Your task to perform on an android device: Clear the cart on walmart.com. Search for alienware aurora on walmart.com, select the first entry, and add it to the cart. Image 0: 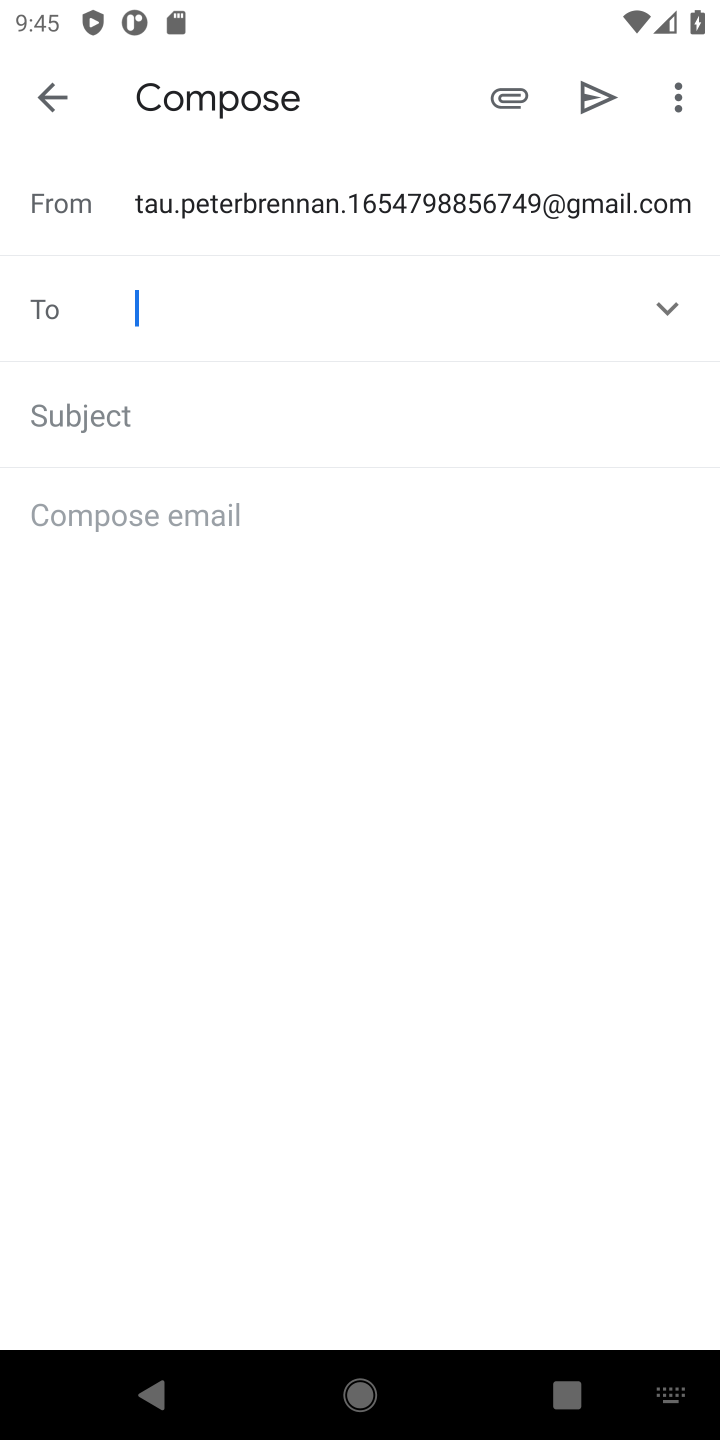
Step 0: press home button
Your task to perform on an android device: Clear the cart on walmart.com. Search for alienware aurora on walmart.com, select the first entry, and add it to the cart. Image 1: 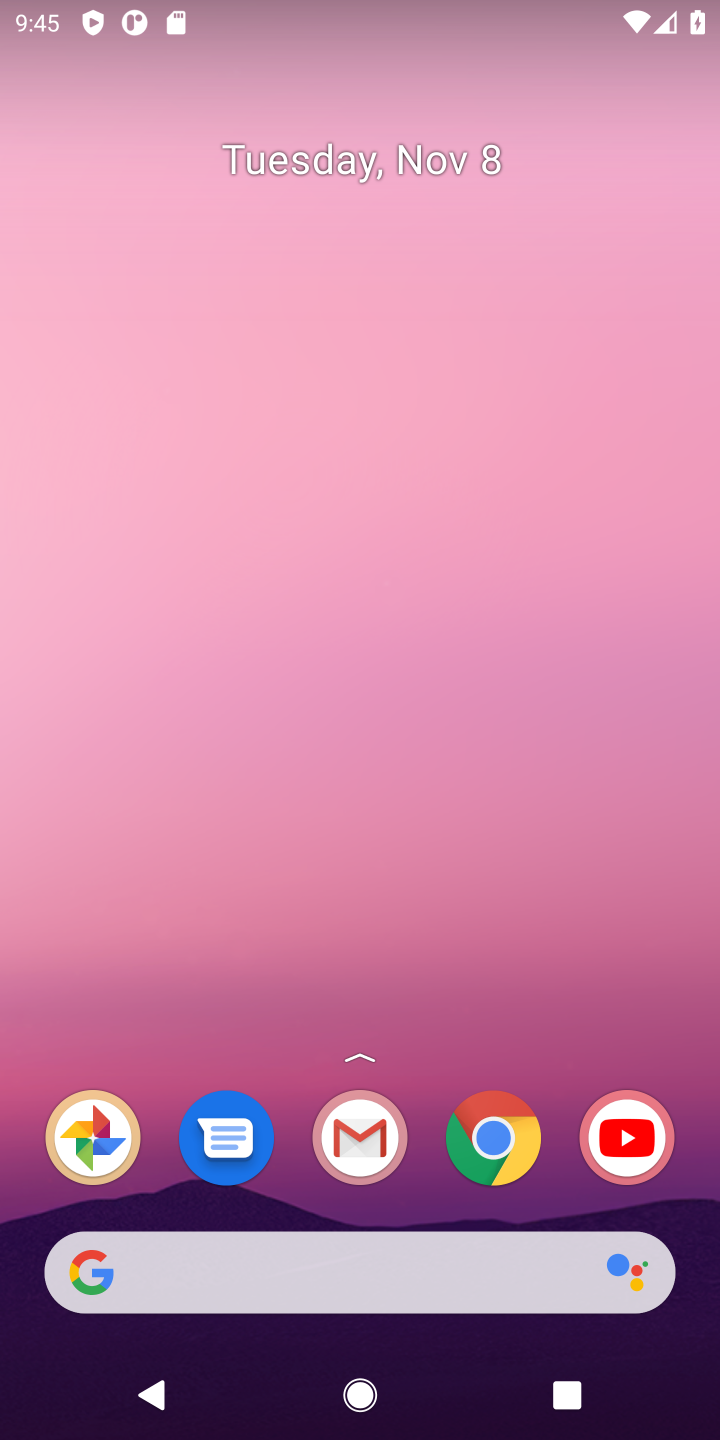
Step 1: click (506, 1148)
Your task to perform on an android device: Clear the cart on walmart.com. Search for alienware aurora on walmart.com, select the first entry, and add it to the cart. Image 2: 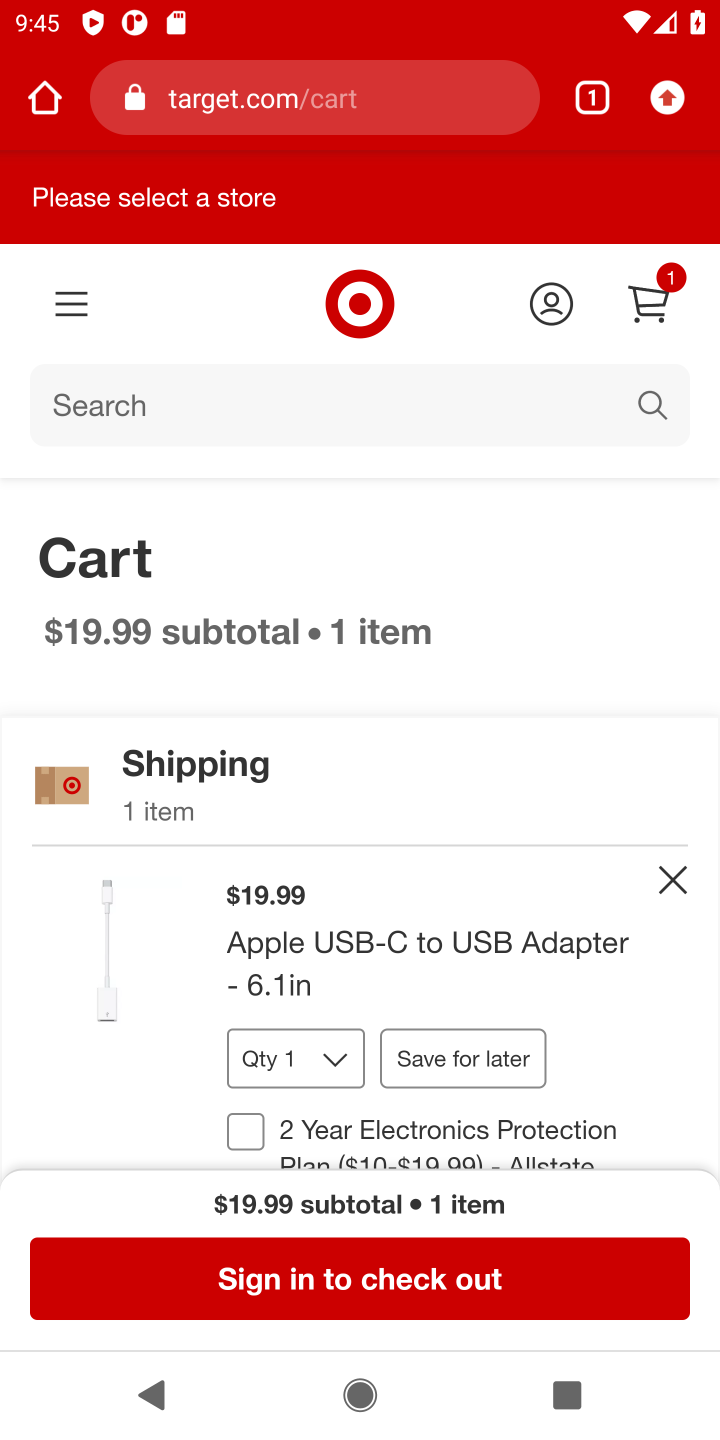
Step 2: click (372, 102)
Your task to perform on an android device: Clear the cart on walmart.com. Search for alienware aurora on walmart.com, select the first entry, and add it to the cart. Image 3: 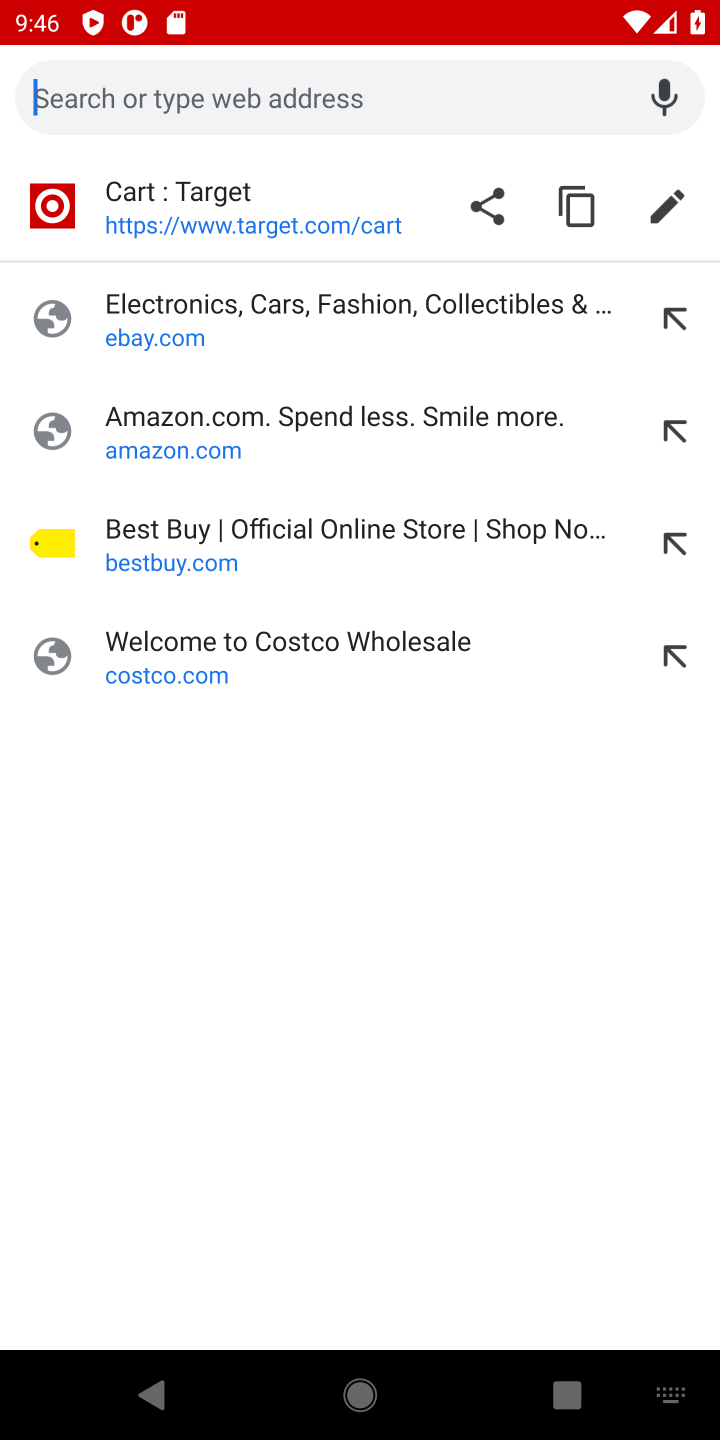
Step 3: type "walmart.com"
Your task to perform on an android device: Clear the cart on walmart.com. Search for alienware aurora on walmart.com, select the first entry, and add it to the cart. Image 4: 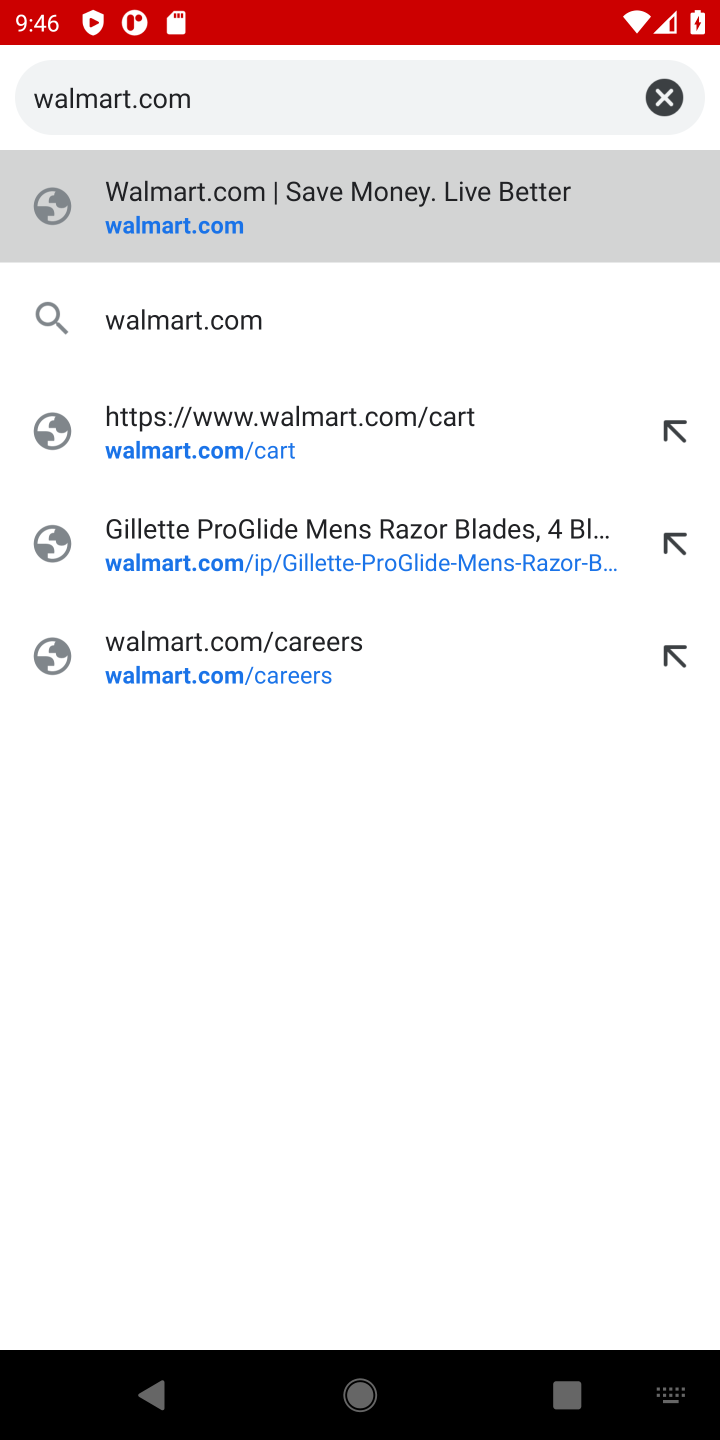
Step 4: press enter
Your task to perform on an android device: Clear the cart on walmart.com. Search for alienware aurora on walmart.com, select the first entry, and add it to the cart. Image 5: 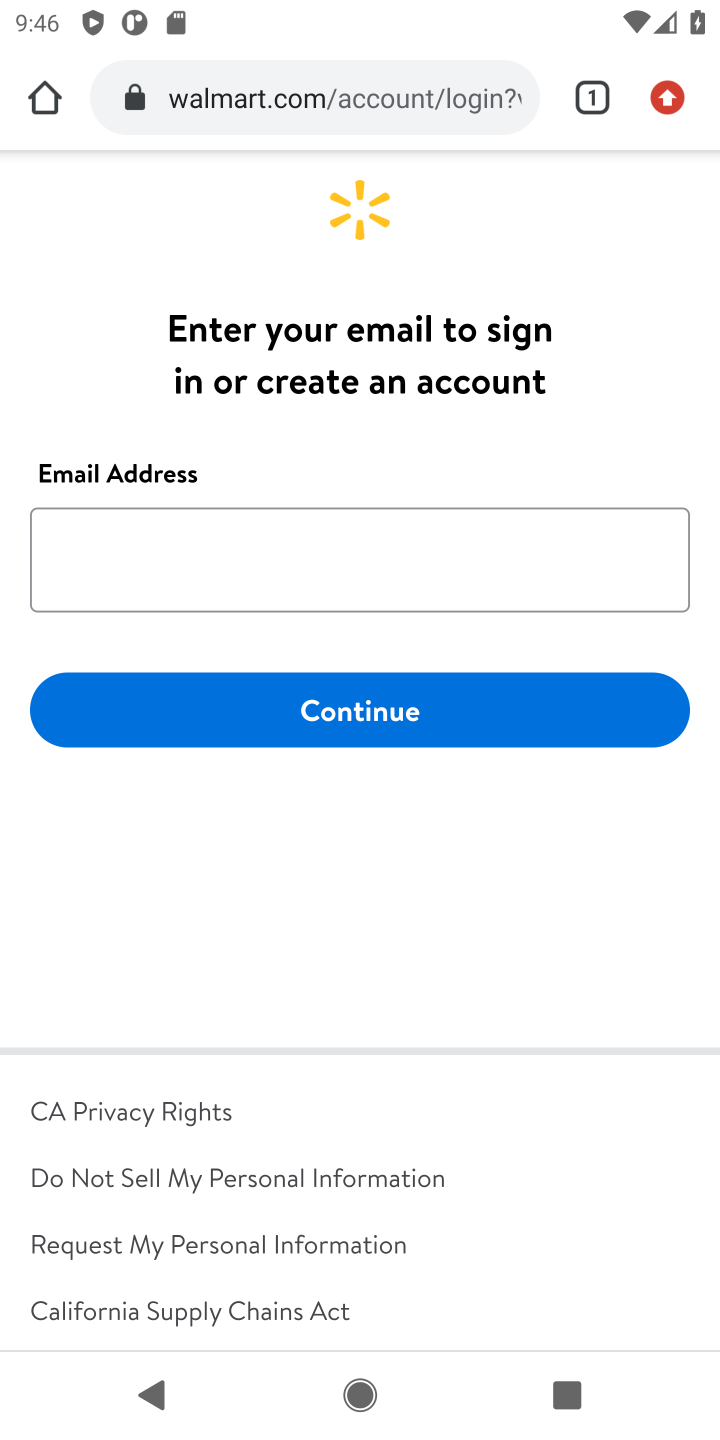
Step 5: drag from (377, 266) to (456, 1160)
Your task to perform on an android device: Clear the cart on walmart.com. Search for alienware aurora on walmart.com, select the first entry, and add it to the cart. Image 6: 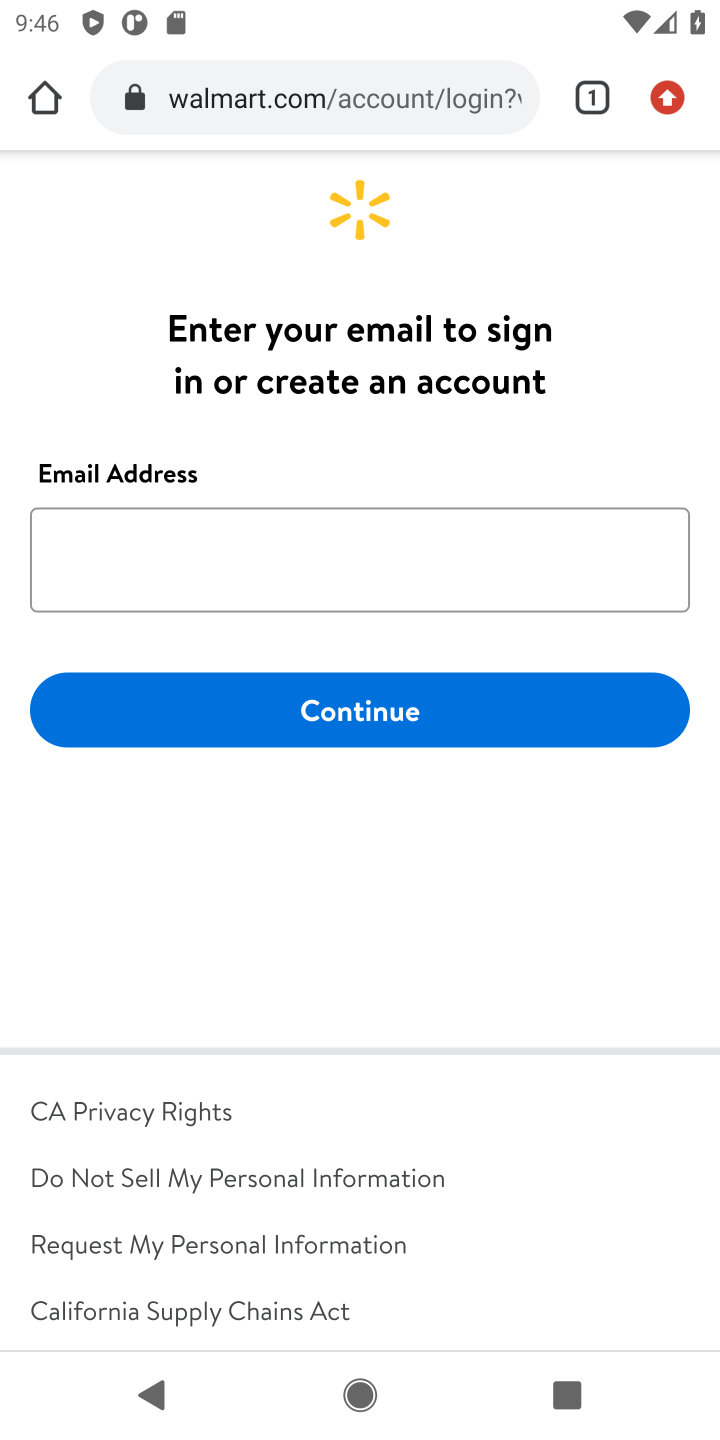
Step 6: press back button
Your task to perform on an android device: Clear the cart on walmart.com. Search for alienware aurora on walmart.com, select the first entry, and add it to the cart. Image 7: 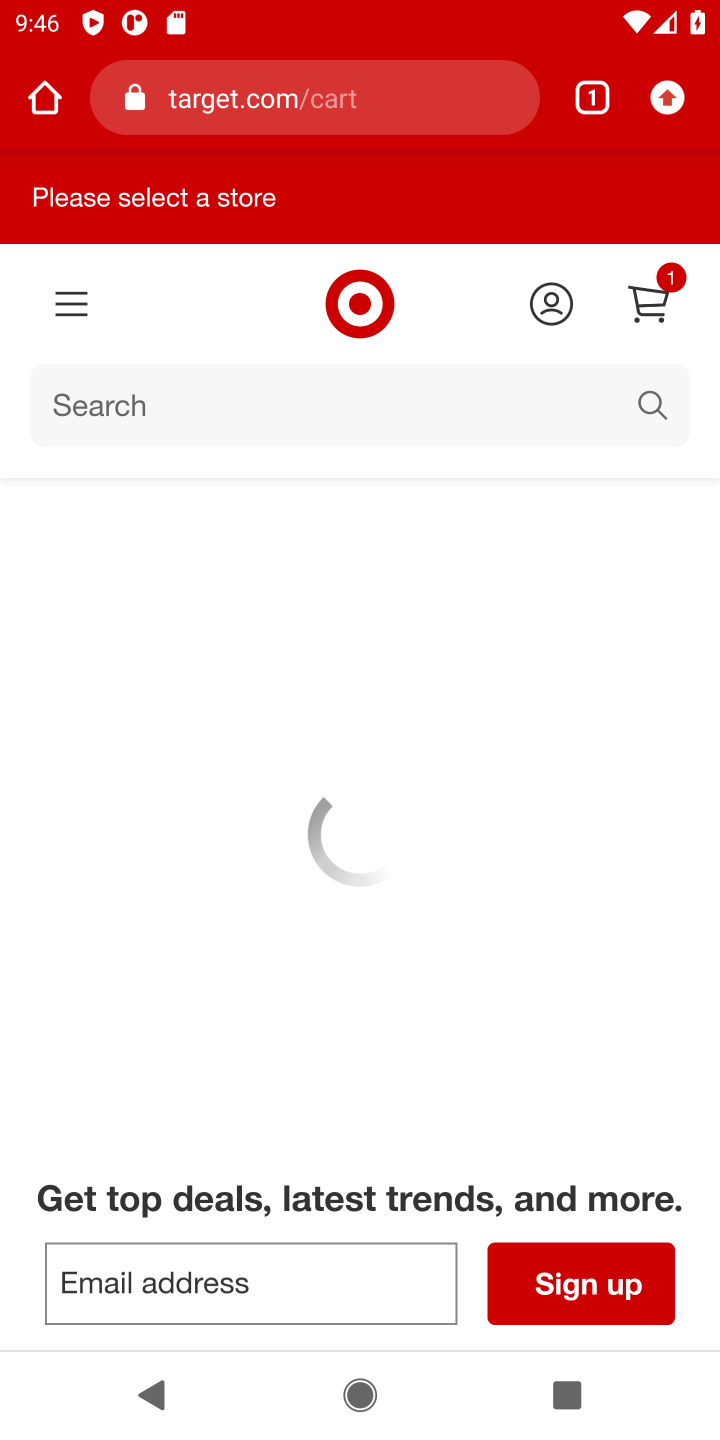
Step 7: click (307, 78)
Your task to perform on an android device: Clear the cart on walmart.com. Search for alienware aurora on walmart.com, select the first entry, and add it to the cart. Image 8: 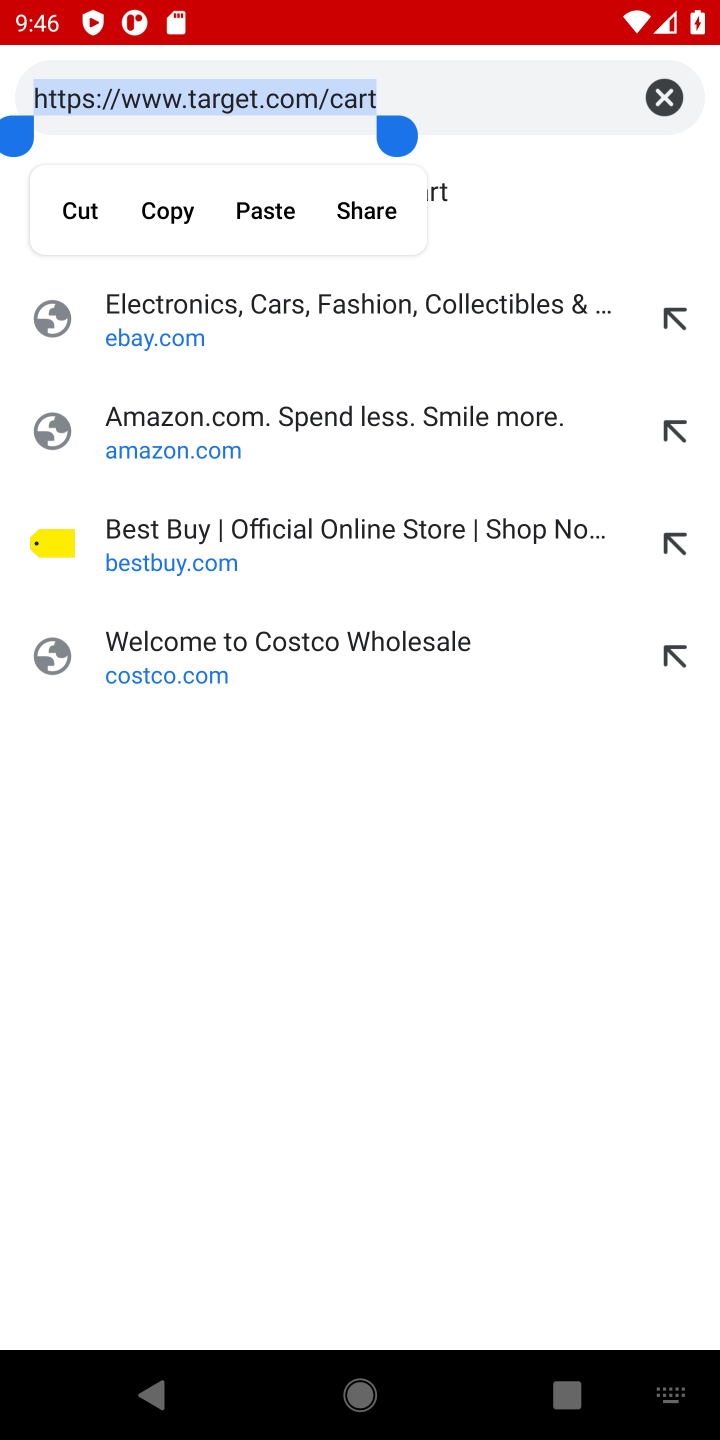
Step 8: click (663, 99)
Your task to perform on an android device: Clear the cart on walmart.com. Search for alienware aurora on walmart.com, select the first entry, and add it to the cart. Image 9: 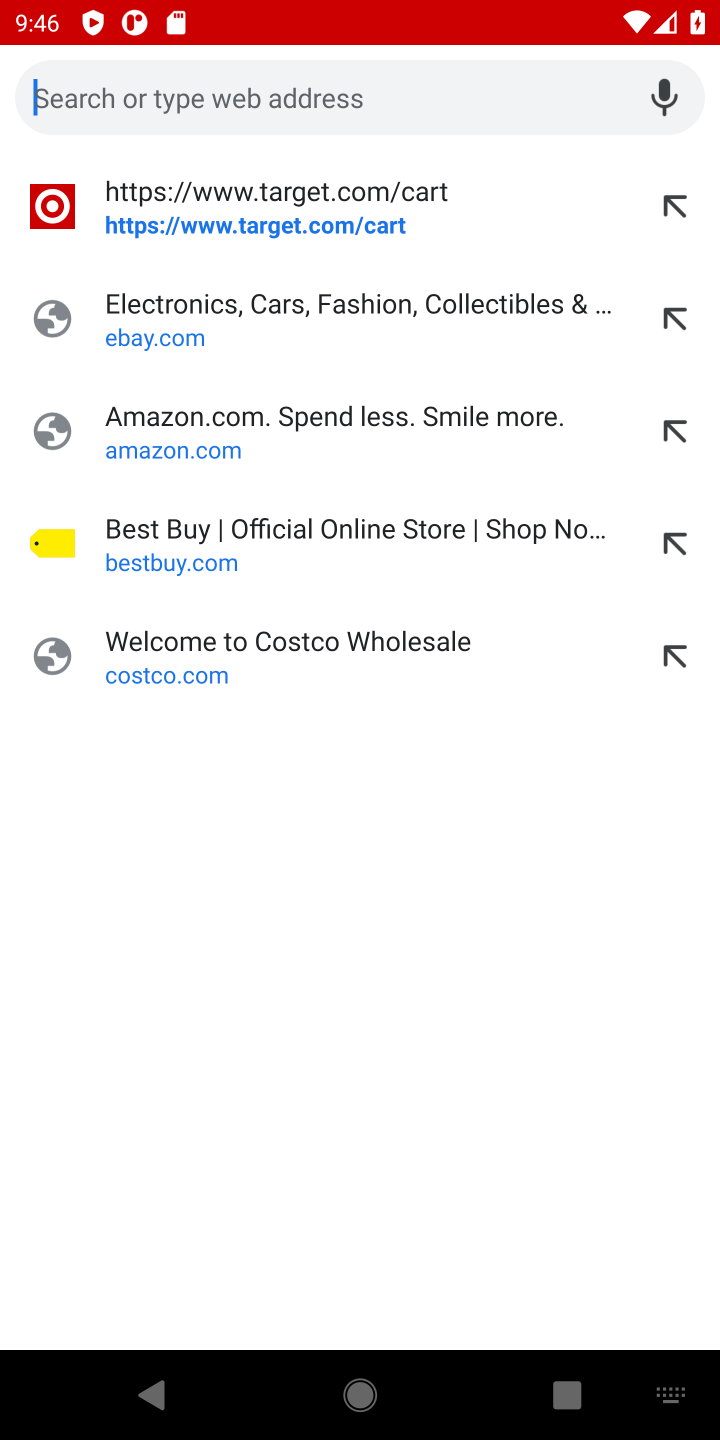
Step 9: type "walmart.com"
Your task to perform on an android device: Clear the cart on walmart.com. Search for alienware aurora on walmart.com, select the first entry, and add it to the cart. Image 10: 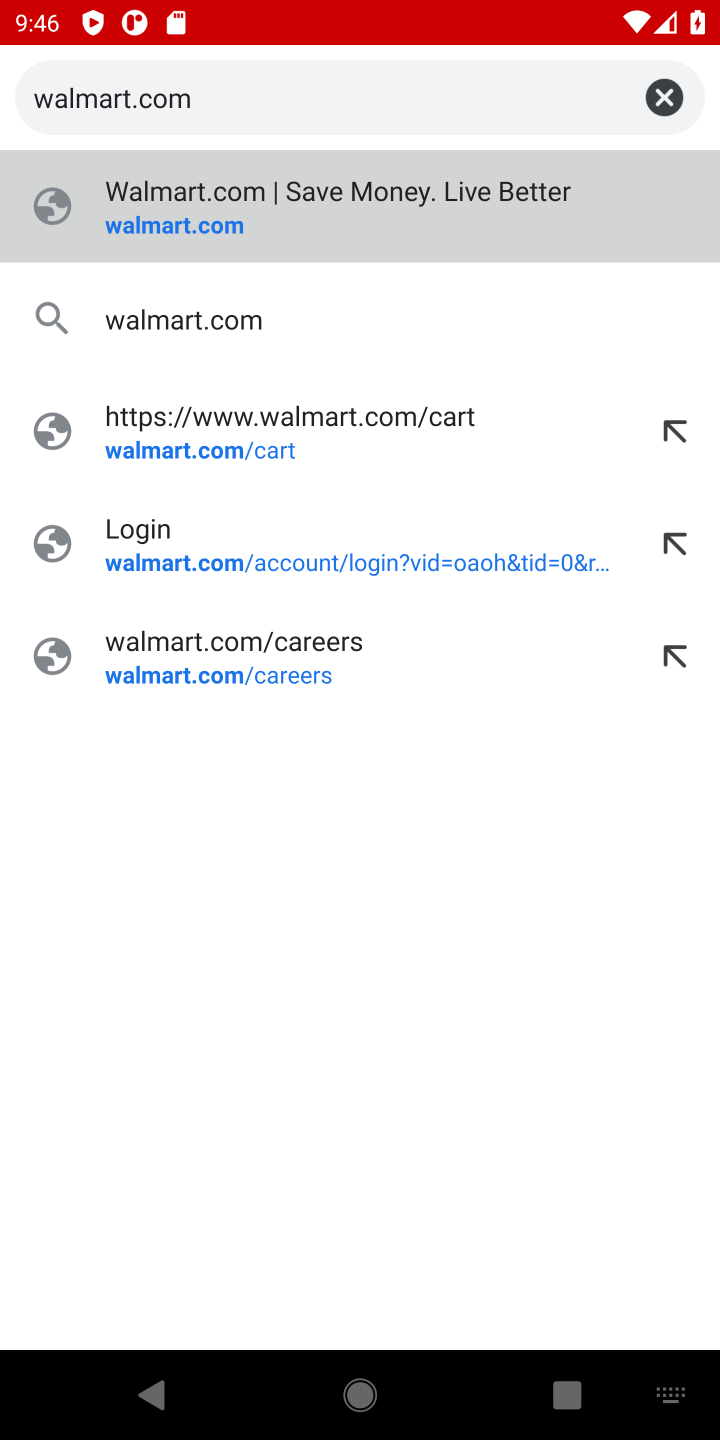
Step 10: press enter
Your task to perform on an android device: Clear the cart on walmart.com. Search for alienware aurora on walmart.com, select the first entry, and add it to the cart. Image 11: 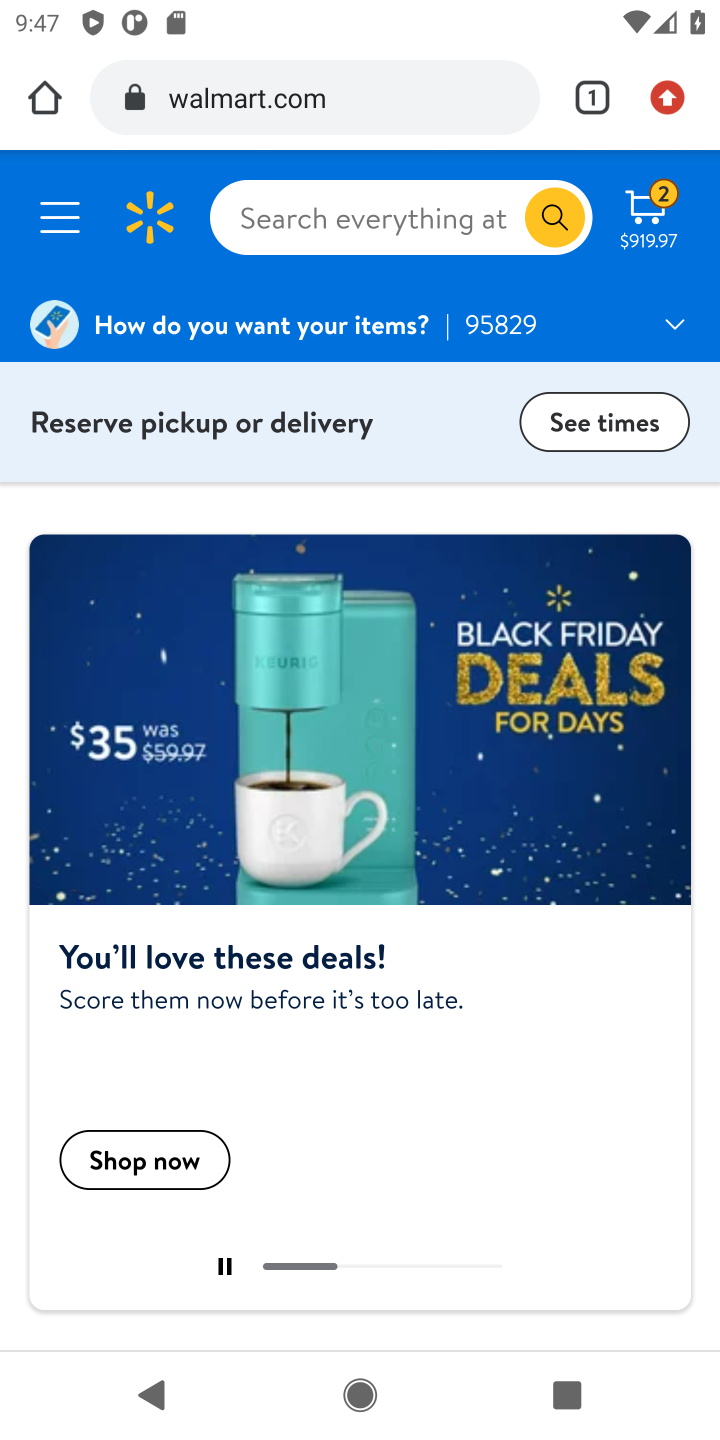
Step 11: click (338, 203)
Your task to perform on an android device: Clear the cart on walmart.com. Search for alienware aurora on walmart.com, select the first entry, and add it to the cart. Image 12: 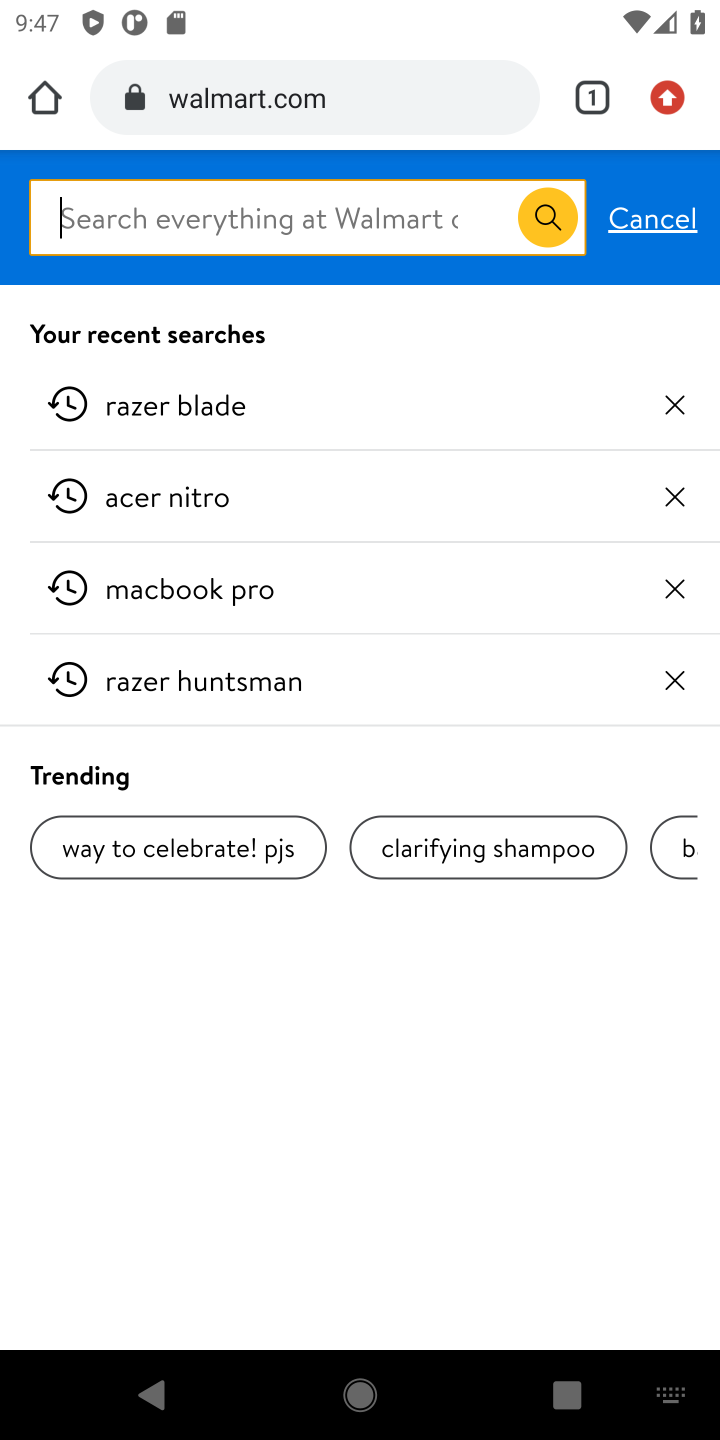
Step 12: type " alienware aurora "
Your task to perform on an android device: Clear the cart on walmart.com. Search for alienware aurora on walmart.com, select the first entry, and add it to the cart. Image 13: 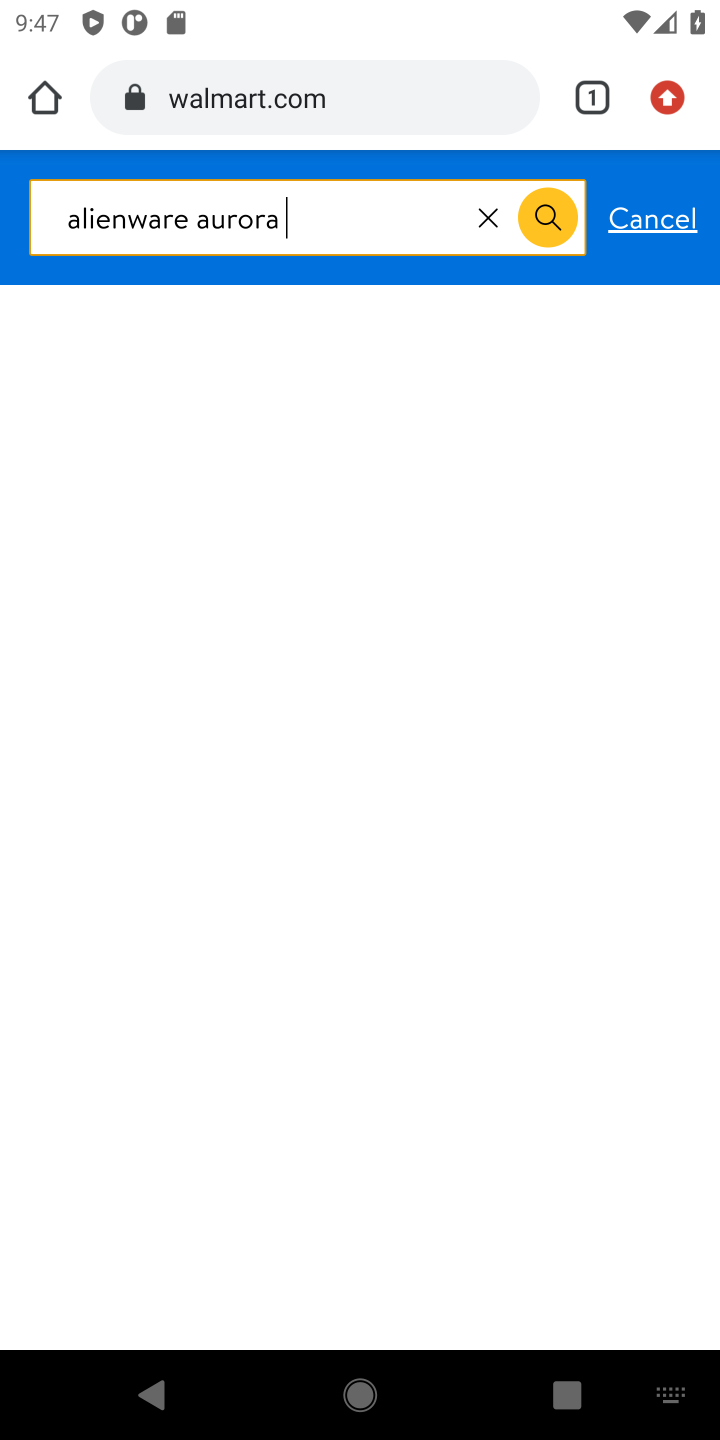
Step 13: press enter
Your task to perform on an android device: Clear the cart on walmart.com. Search for alienware aurora on walmart.com, select the first entry, and add it to the cart. Image 14: 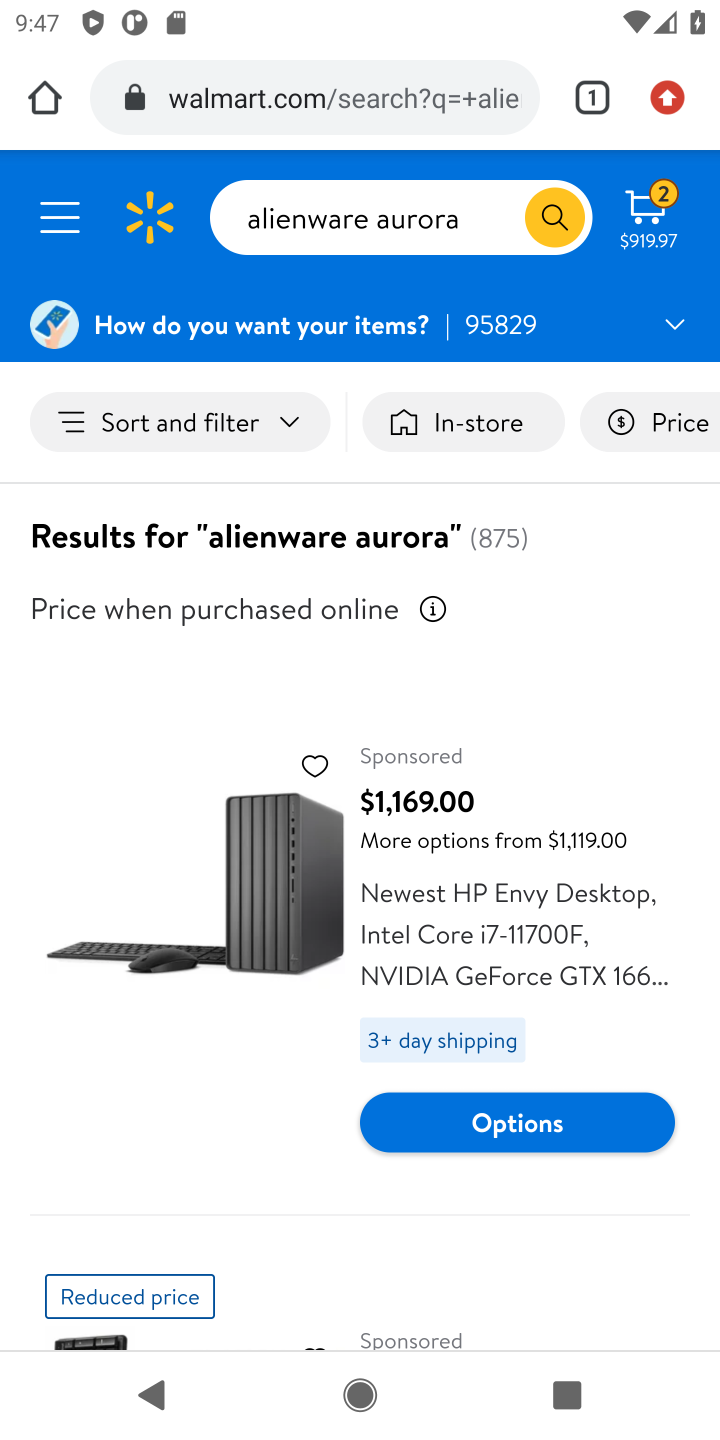
Step 14: task complete